Your task to perform on an android device: turn off sleep mode Image 0: 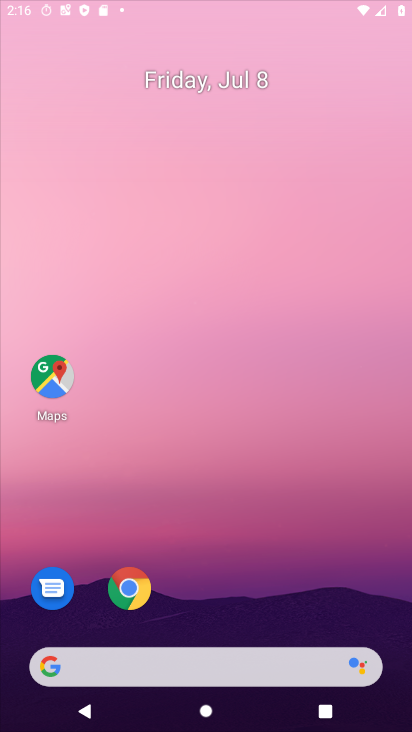
Step 0: press home button
Your task to perform on an android device: turn off sleep mode Image 1: 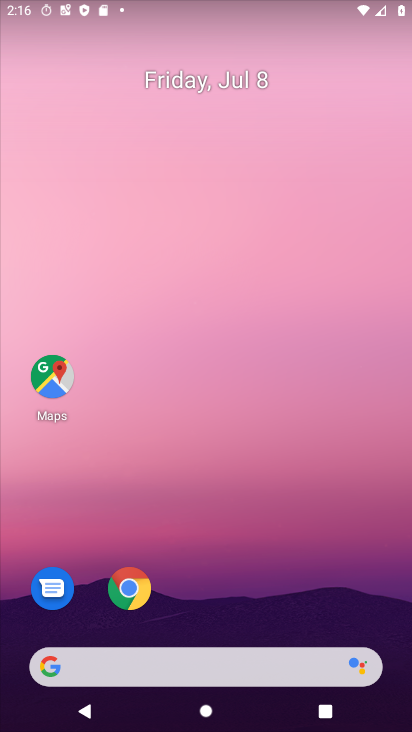
Step 1: drag from (252, 590) to (206, 101)
Your task to perform on an android device: turn off sleep mode Image 2: 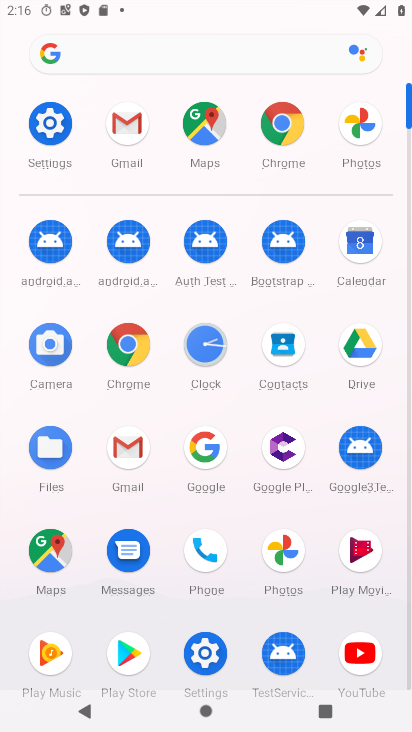
Step 2: click (48, 127)
Your task to perform on an android device: turn off sleep mode Image 3: 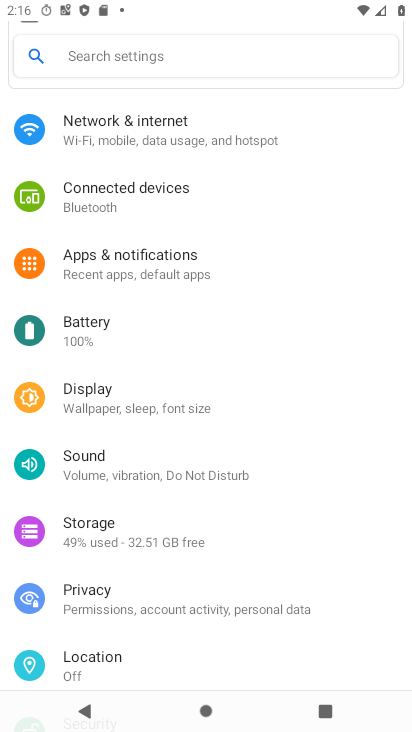
Step 3: click (109, 407)
Your task to perform on an android device: turn off sleep mode Image 4: 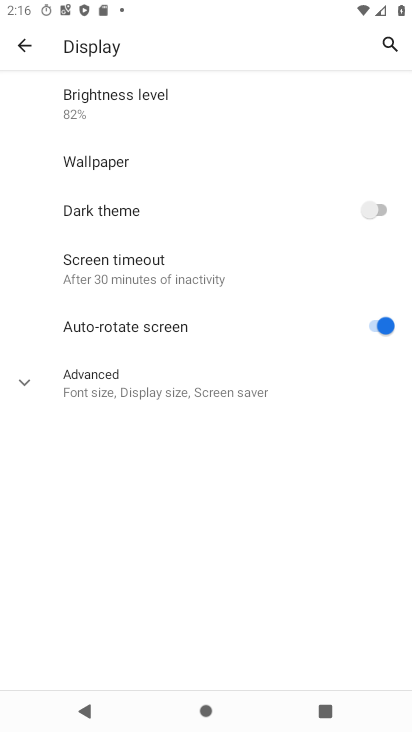
Step 4: task complete